Your task to perform on an android device: Open calendar and show me the first week of next month Image 0: 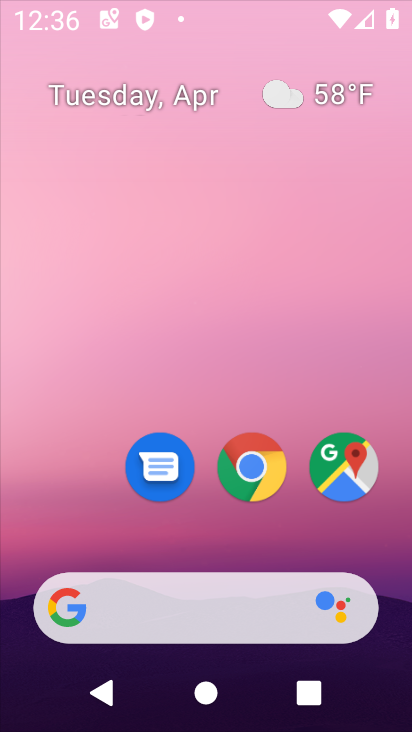
Step 0: drag from (241, 108) to (242, 60)
Your task to perform on an android device: Open calendar and show me the first week of next month Image 1: 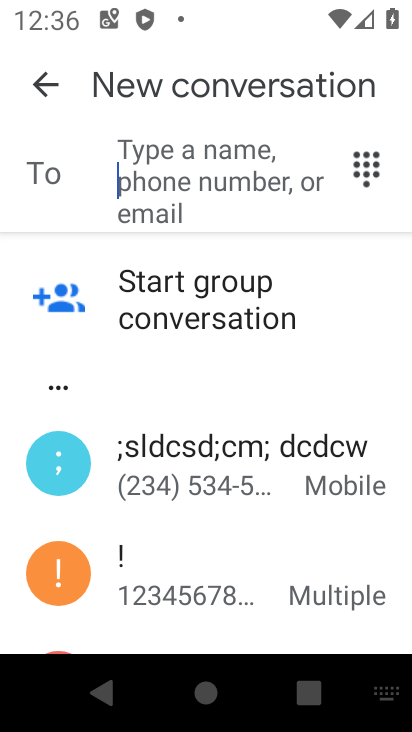
Step 1: press home button
Your task to perform on an android device: Open calendar and show me the first week of next month Image 2: 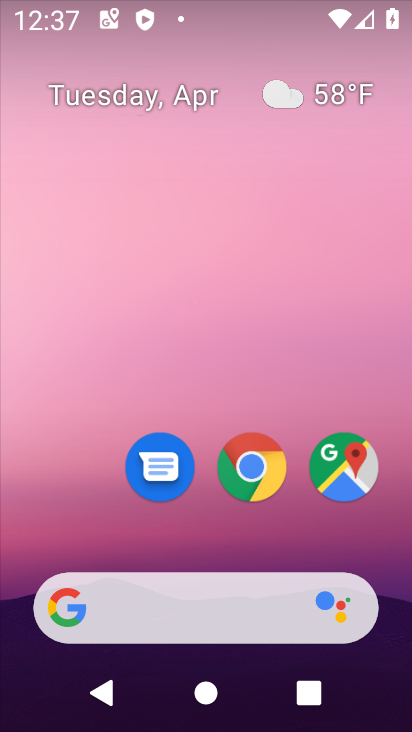
Step 2: click (160, 84)
Your task to perform on an android device: Open calendar and show me the first week of next month Image 3: 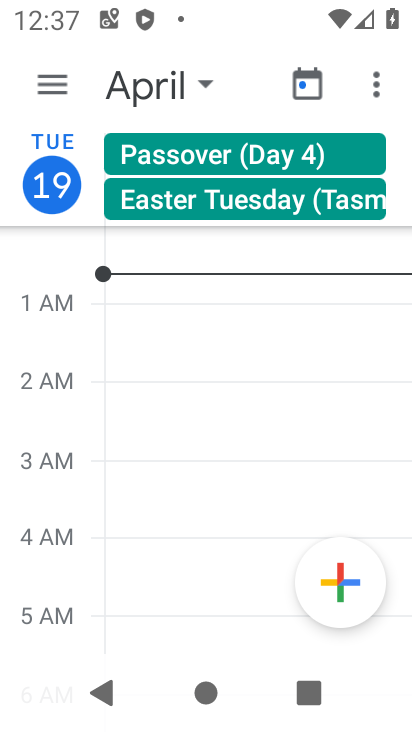
Step 3: click (166, 97)
Your task to perform on an android device: Open calendar and show me the first week of next month Image 4: 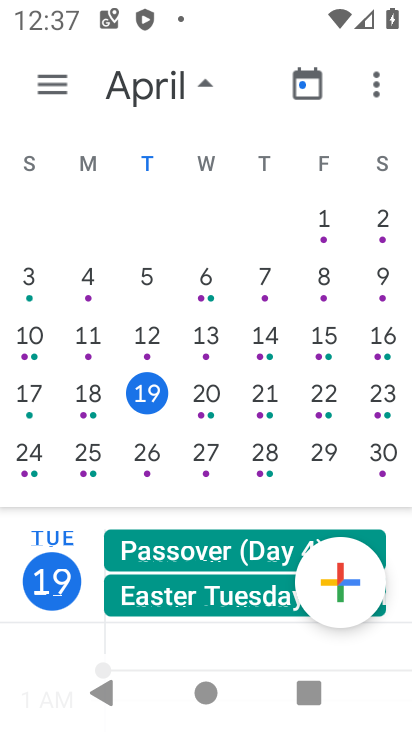
Step 4: drag from (388, 461) to (44, 359)
Your task to perform on an android device: Open calendar and show me the first week of next month Image 5: 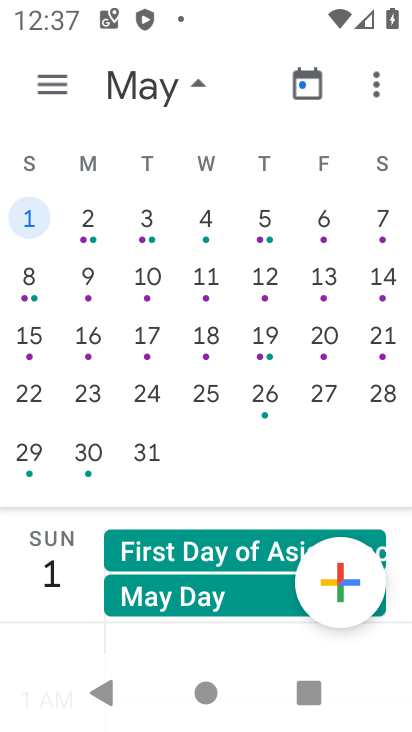
Step 5: click (153, 223)
Your task to perform on an android device: Open calendar and show me the first week of next month Image 6: 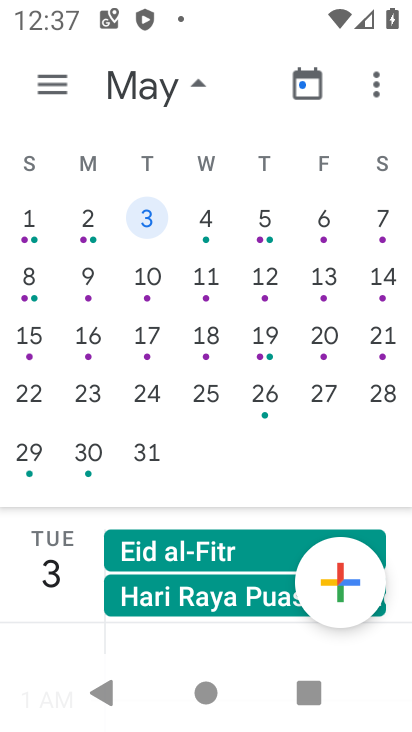
Step 6: task complete